Your task to perform on an android device: find photos in the google photos app Image 0: 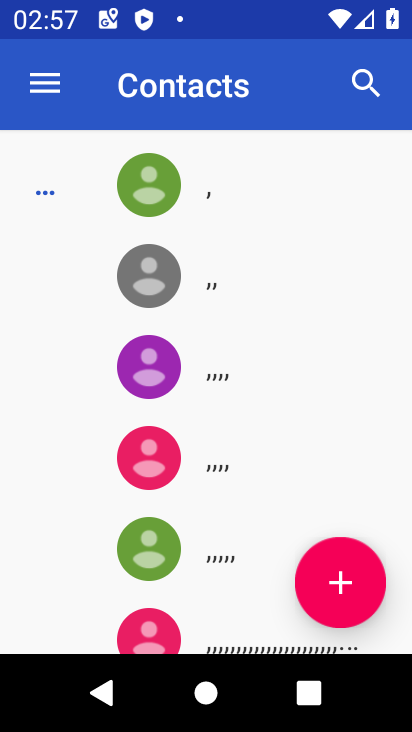
Step 0: press home button
Your task to perform on an android device: find photos in the google photos app Image 1: 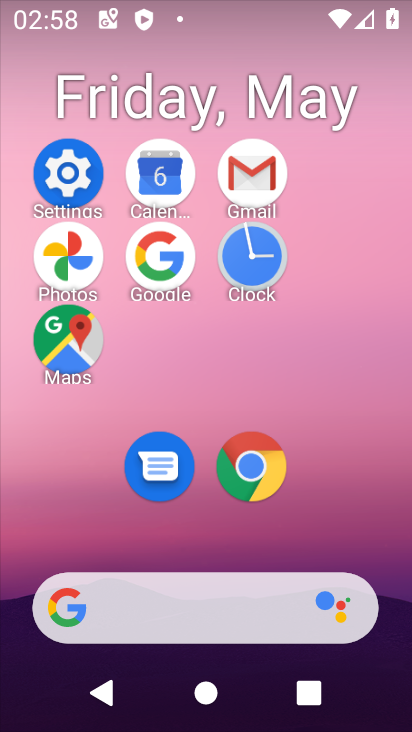
Step 1: click (59, 245)
Your task to perform on an android device: find photos in the google photos app Image 2: 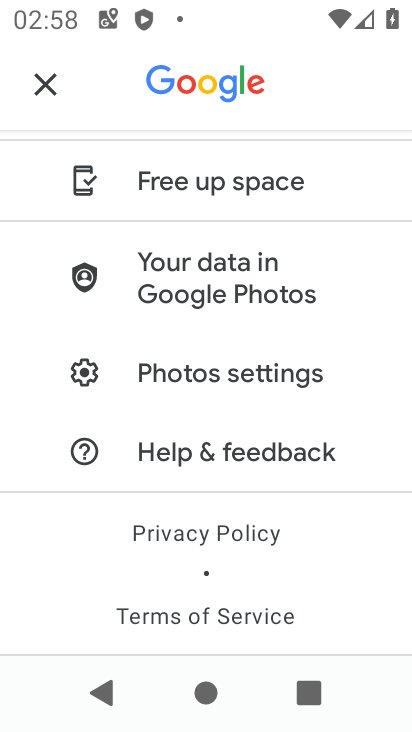
Step 2: click (40, 103)
Your task to perform on an android device: find photos in the google photos app Image 3: 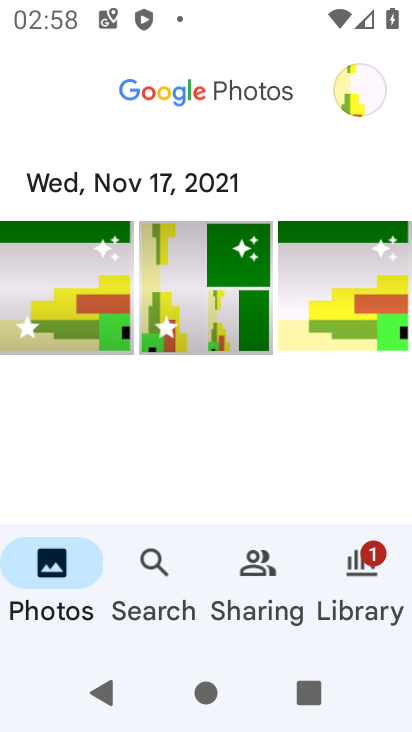
Step 3: click (97, 236)
Your task to perform on an android device: find photos in the google photos app Image 4: 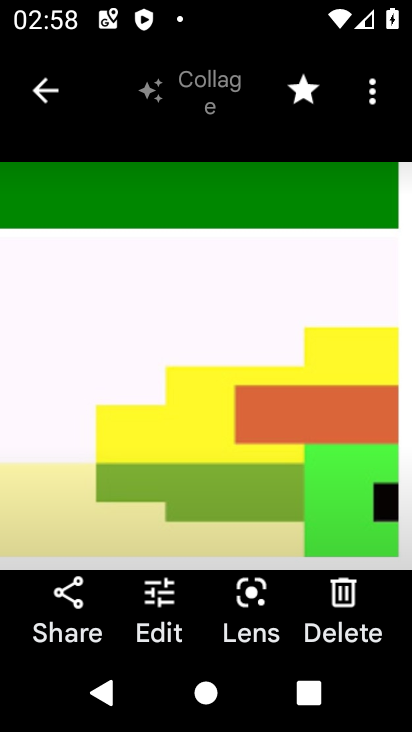
Step 4: task complete